Your task to perform on an android device: turn off javascript in the chrome app Image 0: 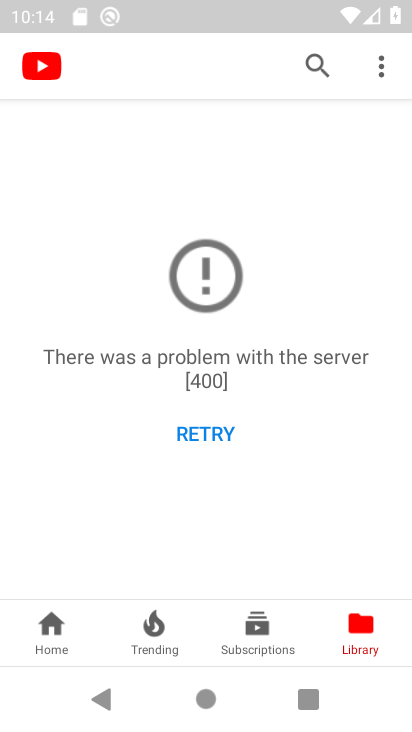
Step 0: press home button
Your task to perform on an android device: turn off javascript in the chrome app Image 1: 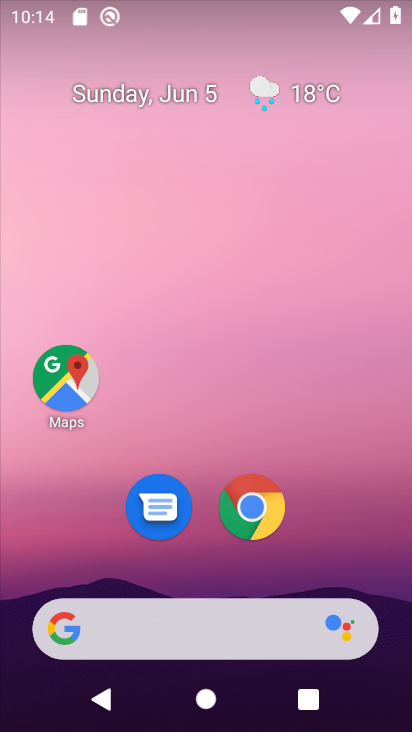
Step 1: drag from (197, 562) to (245, 36)
Your task to perform on an android device: turn off javascript in the chrome app Image 2: 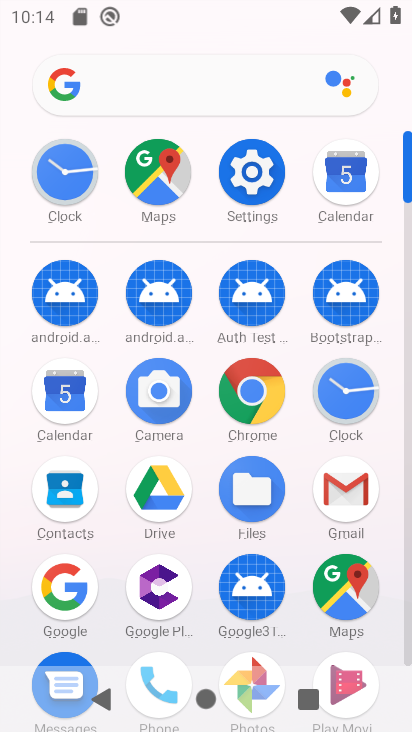
Step 2: click (249, 400)
Your task to perform on an android device: turn off javascript in the chrome app Image 3: 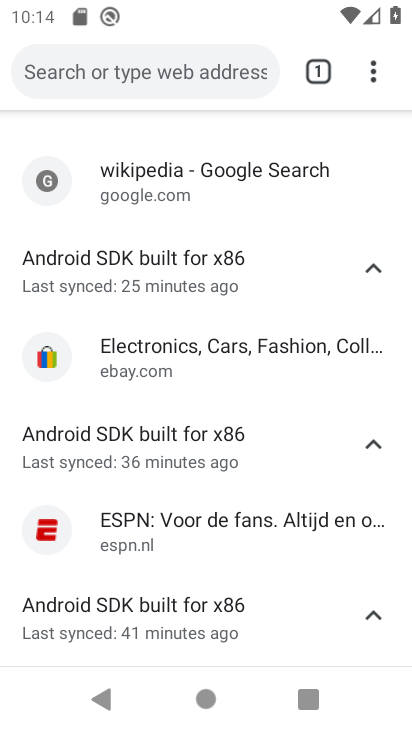
Step 3: click (371, 68)
Your task to perform on an android device: turn off javascript in the chrome app Image 4: 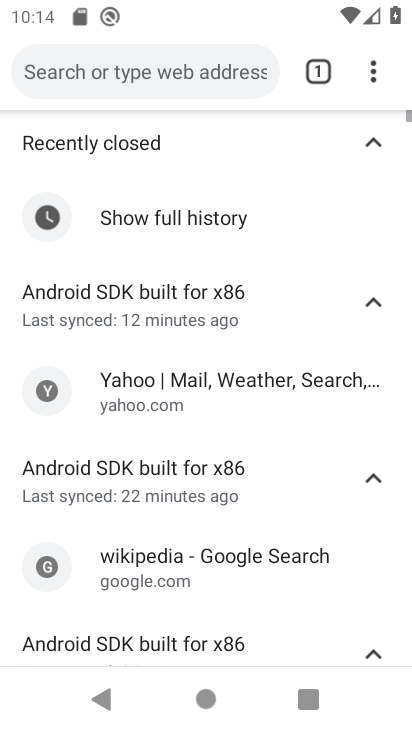
Step 4: click (369, 66)
Your task to perform on an android device: turn off javascript in the chrome app Image 5: 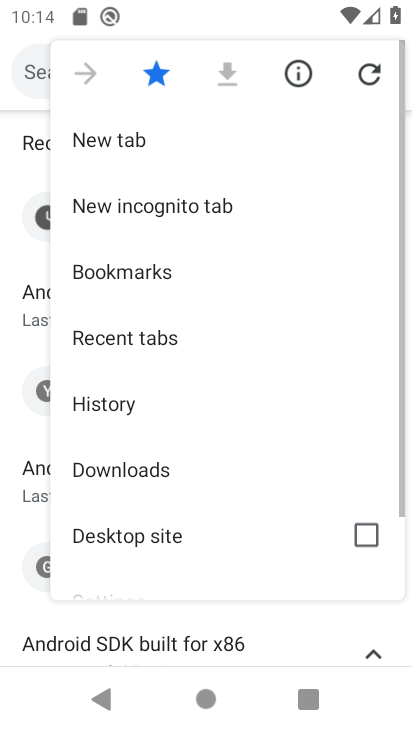
Step 5: drag from (185, 484) to (258, 22)
Your task to perform on an android device: turn off javascript in the chrome app Image 6: 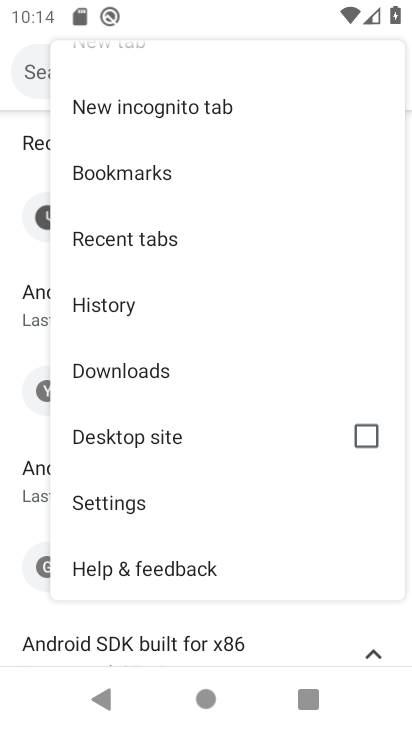
Step 6: click (134, 504)
Your task to perform on an android device: turn off javascript in the chrome app Image 7: 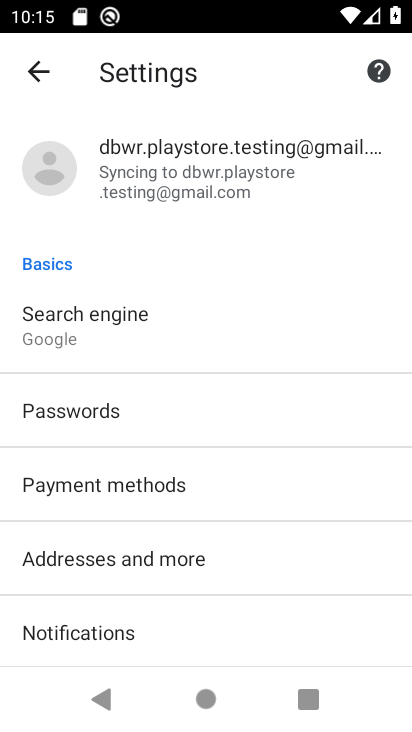
Step 7: drag from (177, 576) to (217, 231)
Your task to perform on an android device: turn off javascript in the chrome app Image 8: 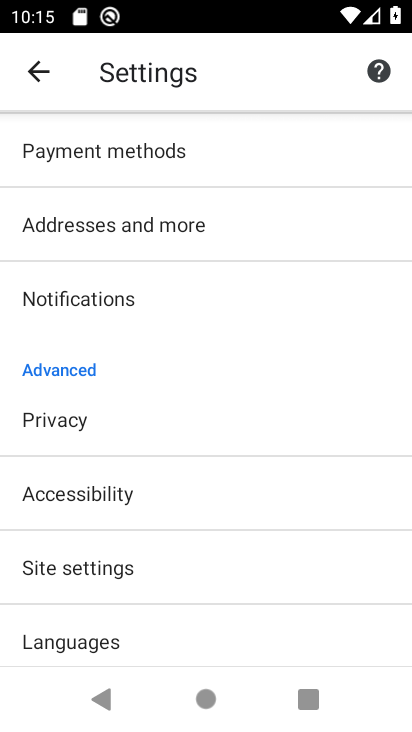
Step 8: drag from (126, 518) to (142, 419)
Your task to perform on an android device: turn off javascript in the chrome app Image 9: 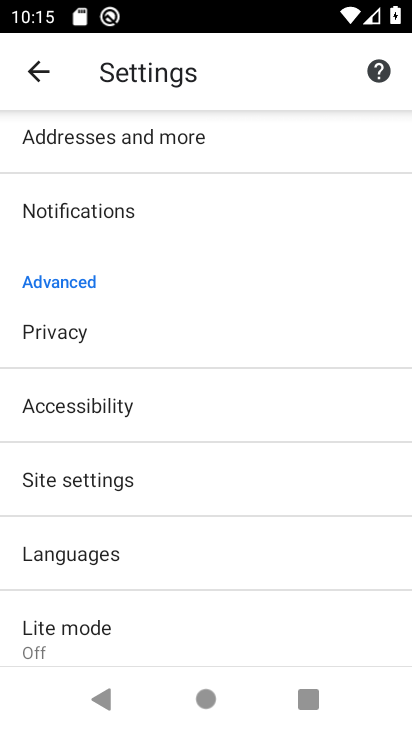
Step 9: click (100, 480)
Your task to perform on an android device: turn off javascript in the chrome app Image 10: 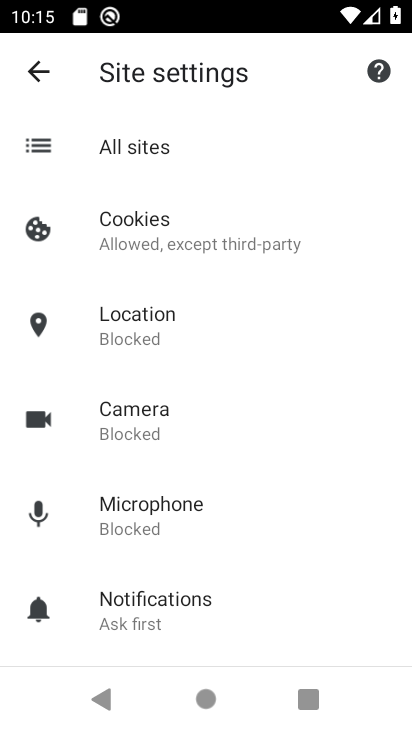
Step 10: drag from (176, 575) to (238, 243)
Your task to perform on an android device: turn off javascript in the chrome app Image 11: 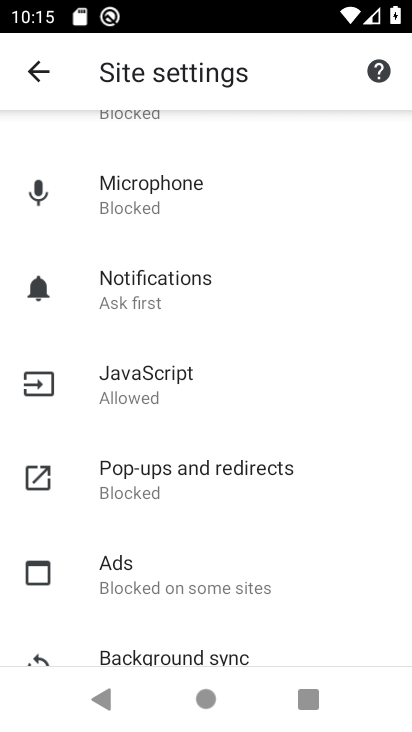
Step 11: click (161, 385)
Your task to perform on an android device: turn off javascript in the chrome app Image 12: 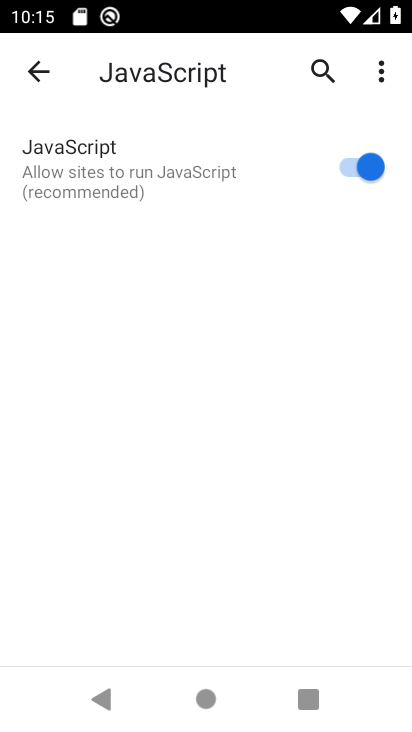
Step 12: click (334, 165)
Your task to perform on an android device: turn off javascript in the chrome app Image 13: 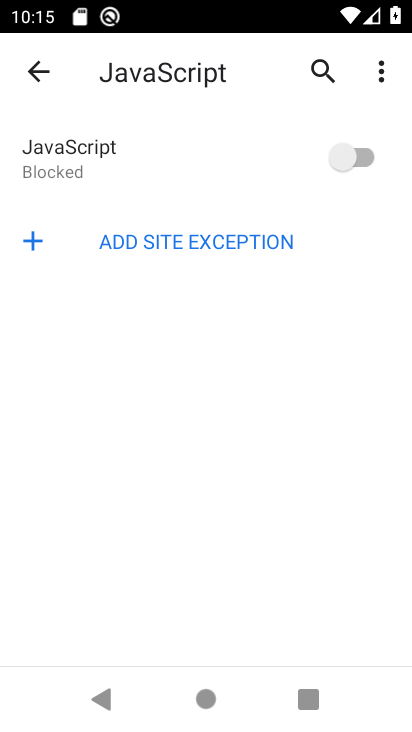
Step 13: task complete